Your task to perform on an android device: Show me the alarms in the clock app Image 0: 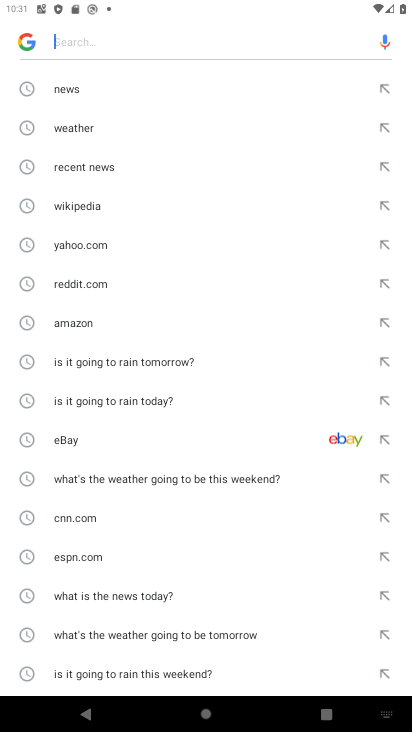
Step 0: press back button
Your task to perform on an android device: Show me the alarms in the clock app Image 1: 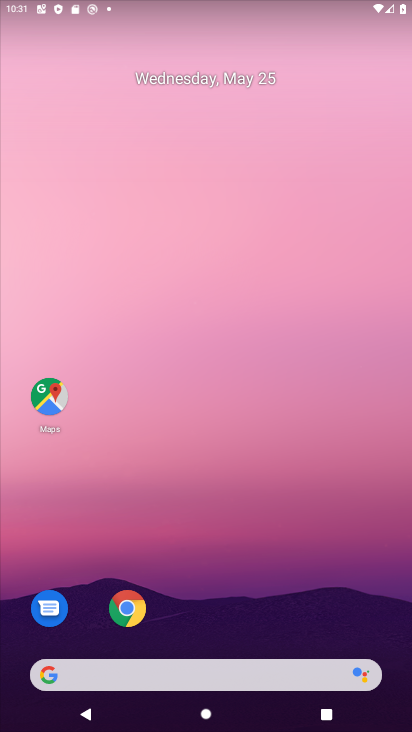
Step 1: drag from (258, 596) to (164, 65)
Your task to perform on an android device: Show me the alarms in the clock app Image 2: 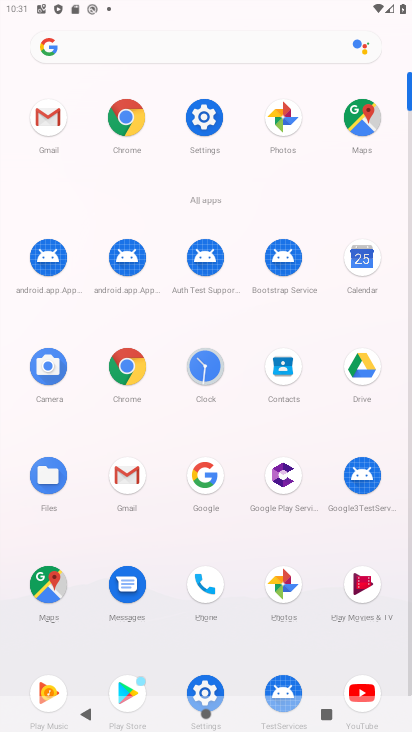
Step 2: click (204, 368)
Your task to perform on an android device: Show me the alarms in the clock app Image 3: 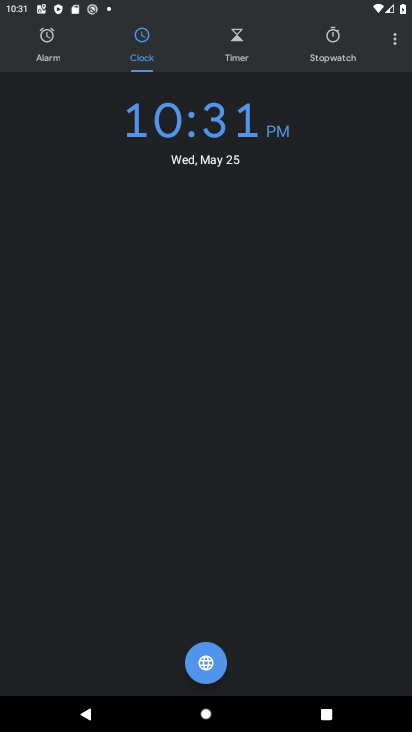
Step 3: click (49, 39)
Your task to perform on an android device: Show me the alarms in the clock app Image 4: 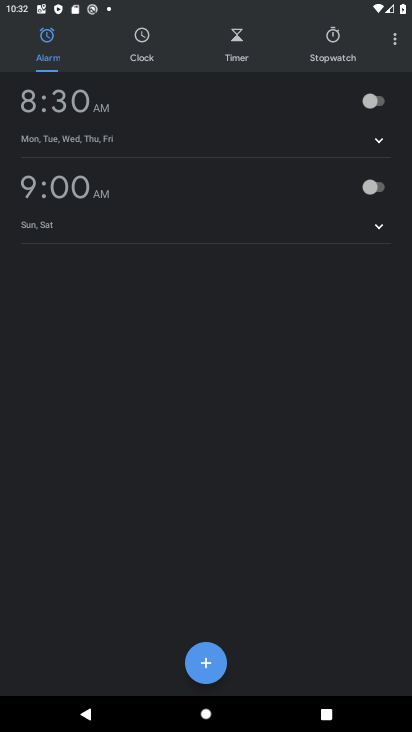
Step 4: task complete